Your task to perform on an android device: Open settings Image 0: 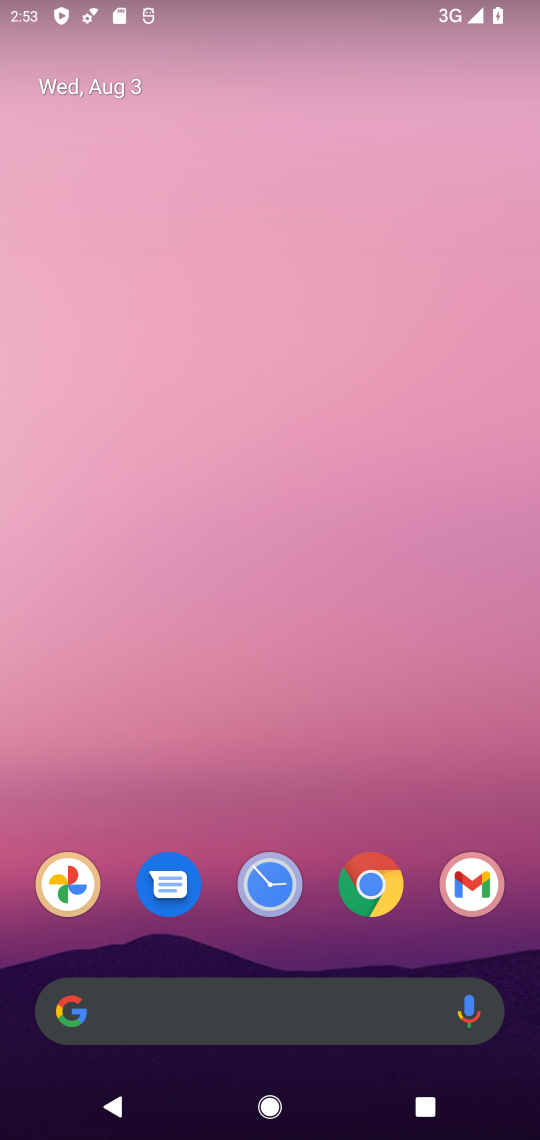
Step 0: drag from (303, 975) to (300, 269)
Your task to perform on an android device: Open settings Image 1: 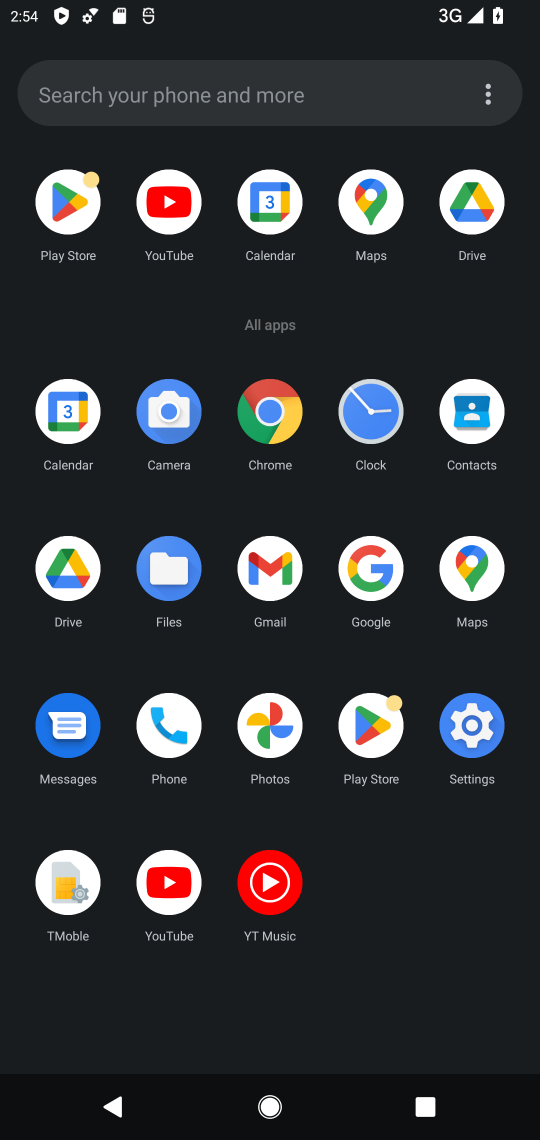
Step 1: click (456, 743)
Your task to perform on an android device: Open settings Image 2: 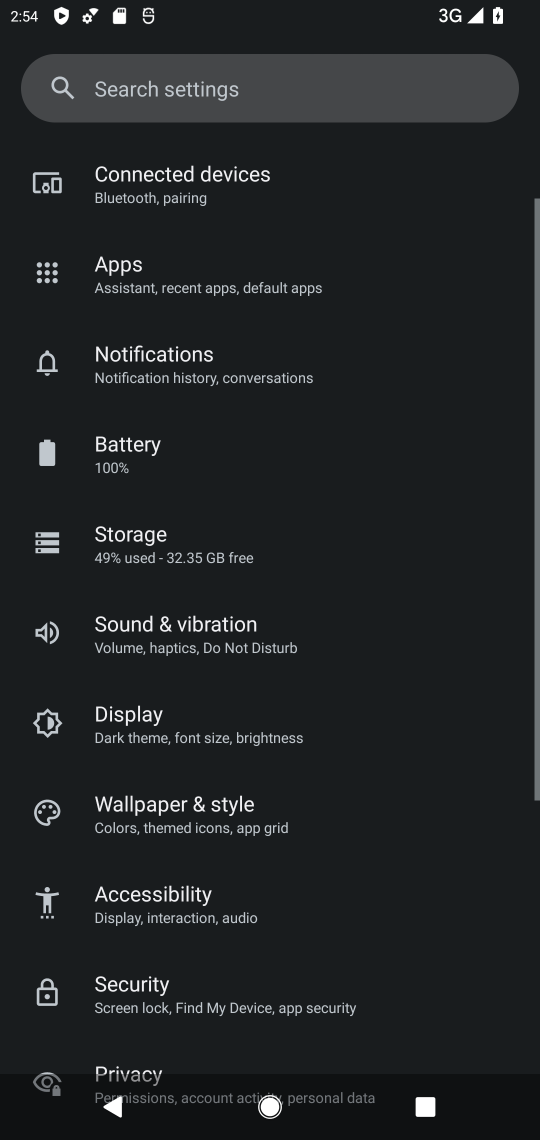
Step 2: task complete